Your task to perform on an android device: turn off notifications settings in the gmail app Image 0: 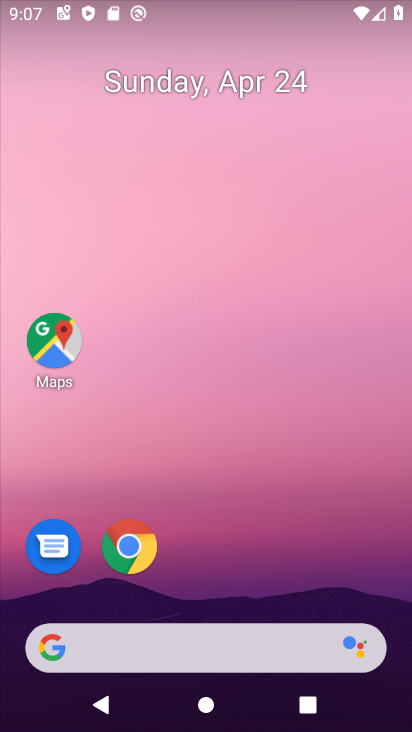
Step 0: drag from (297, 442) to (303, 246)
Your task to perform on an android device: turn off notifications settings in the gmail app Image 1: 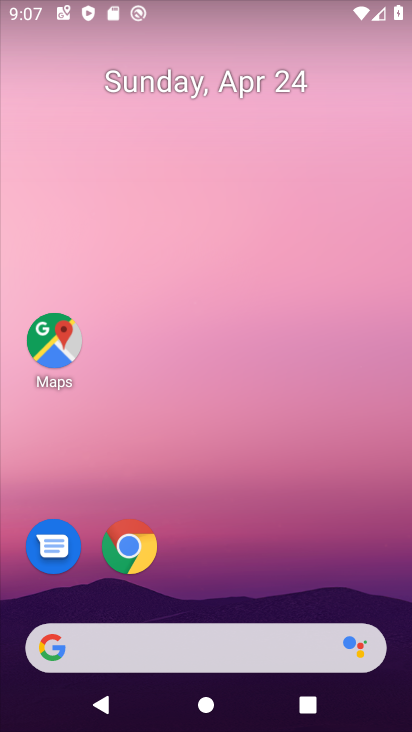
Step 1: drag from (267, 488) to (253, 128)
Your task to perform on an android device: turn off notifications settings in the gmail app Image 2: 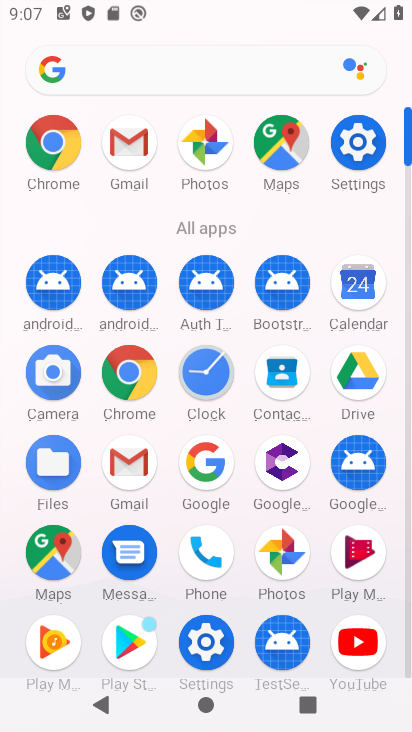
Step 2: click (129, 455)
Your task to perform on an android device: turn off notifications settings in the gmail app Image 3: 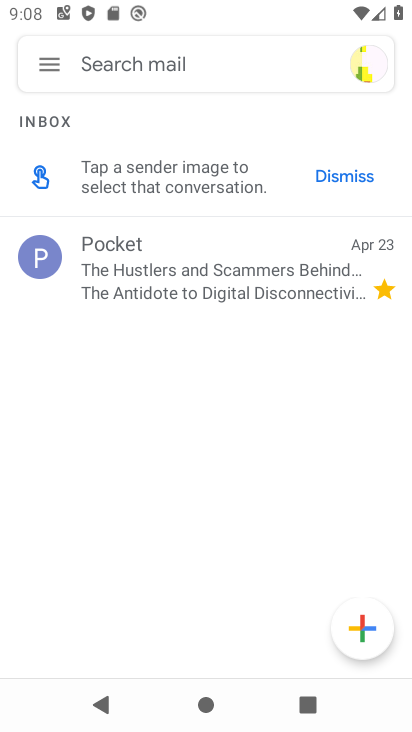
Step 3: click (41, 49)
Your task to perform on an android device: turn off notifications settings in the gmail app Image 4: 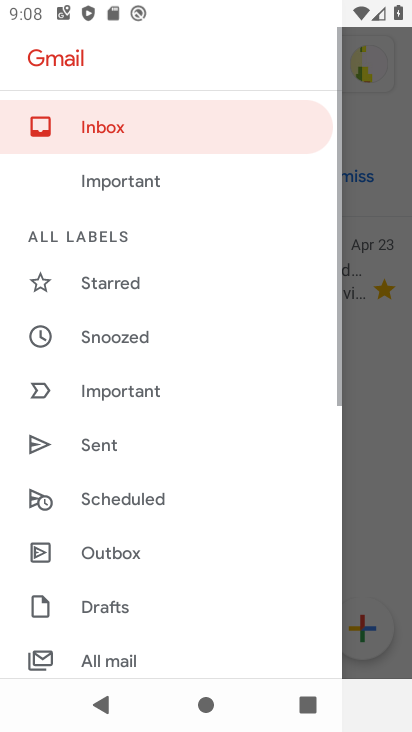
Step 4: drag from (142, 610) to (243, 180)
Your task to perform on an android device: turn off notifications settings in the gmail app Image 5: 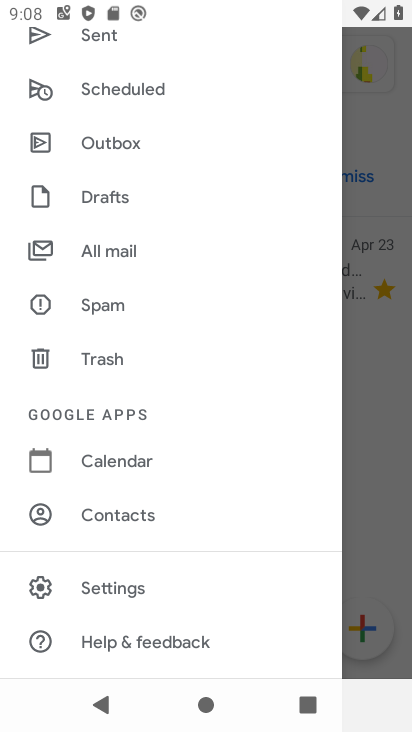
Step 5: click (141, 590)
Your task to perform on an android device: turn off notifications settings in the gmail app Image 6: 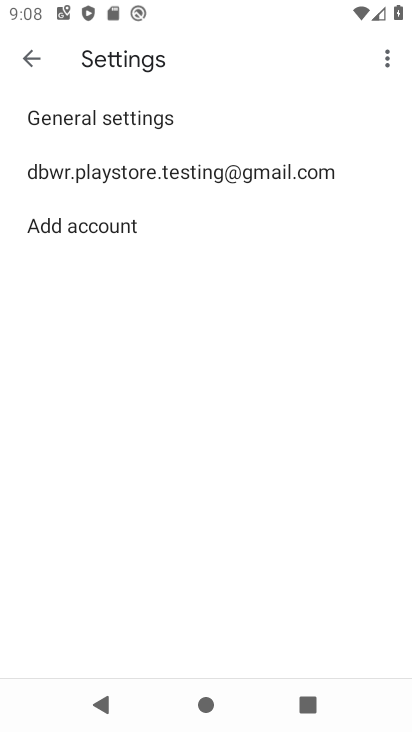
Step 6: click (169, 154)
Your task to perform on an android device: turn off notifications settings in the gmail app Image 7: 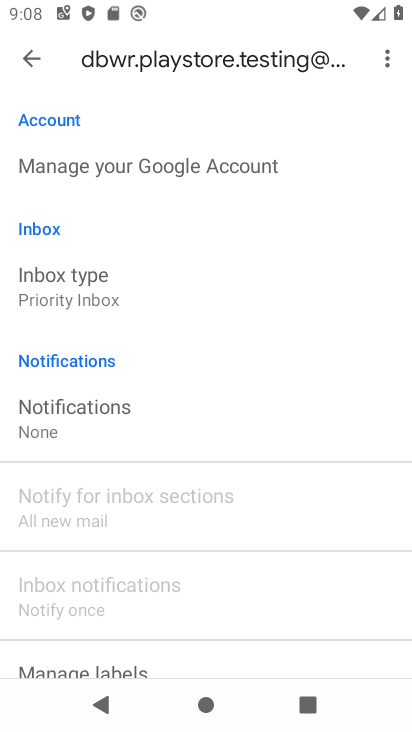
Step 7: click (161, 422)
Your task to perform on an android device: turn off notifications settings in the gmail app Image 8: 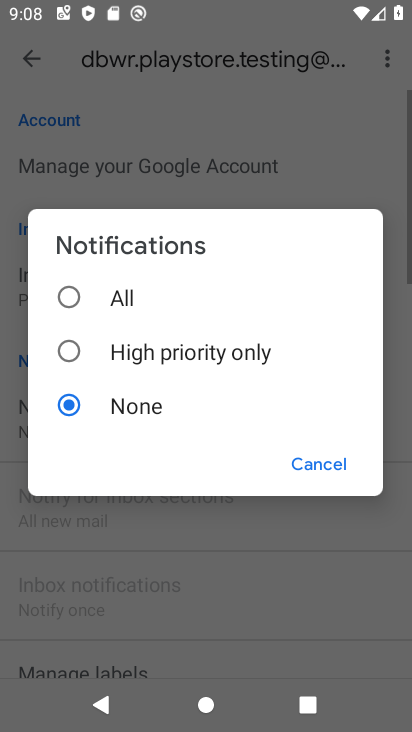
Step 8: task complete